Your task to perform on an android device: visit the assistant section in the google photos Image 0: 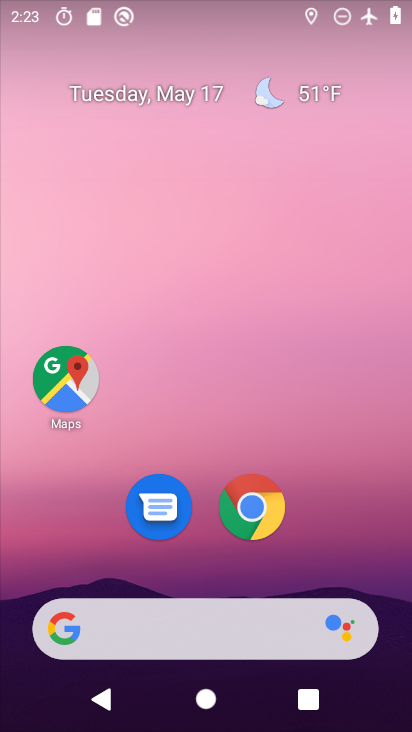
Step 0: drag from (213, 572) to (217, 127)
Your task to perform on an android device: visit the assistant section in the google photos Image 1: 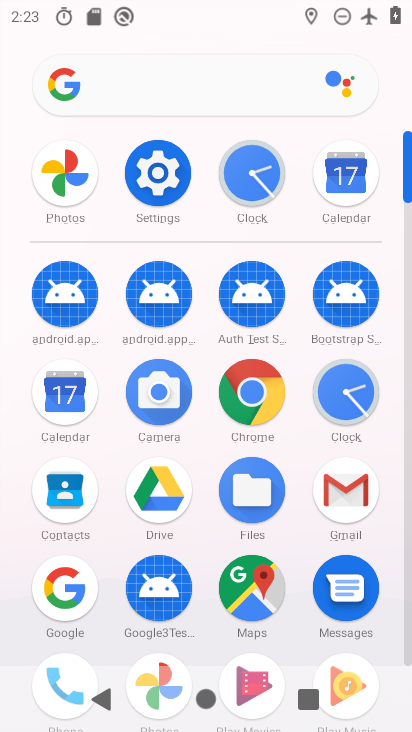
Step 1: drag from (212, 571) to (210, 252)
Your task to perform on an android device: visit the assistant section in the google photos Image 2: 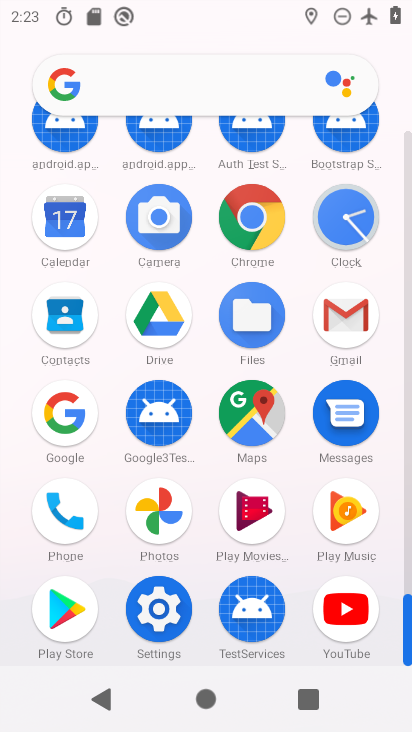
Step 2: click (156, 505)
Your task to perform on an android device: visit the assistant section in the google photos Image 3: 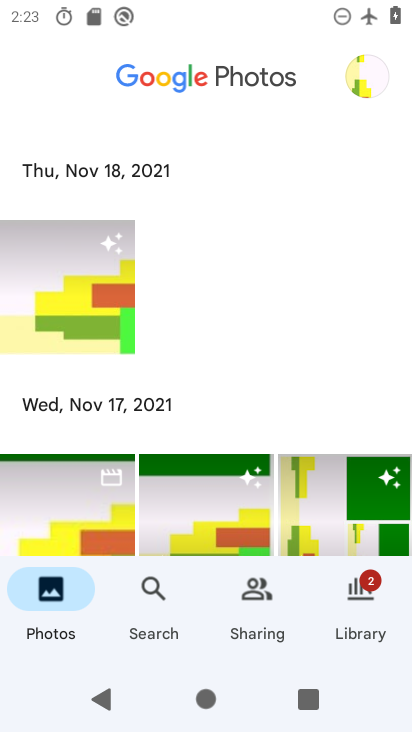
Step 3: task complete